Your task to perform on an android device: Open Yahoo.com Image 0: 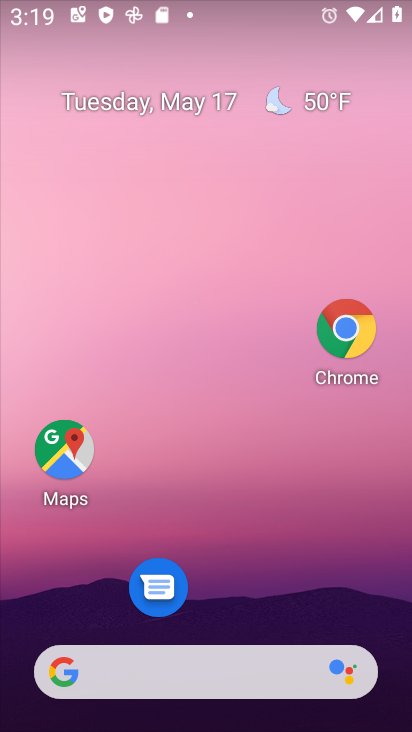
Step 0: click (359, 328)
Your task to perform on an android device: Open Yahoo.com Image 1: 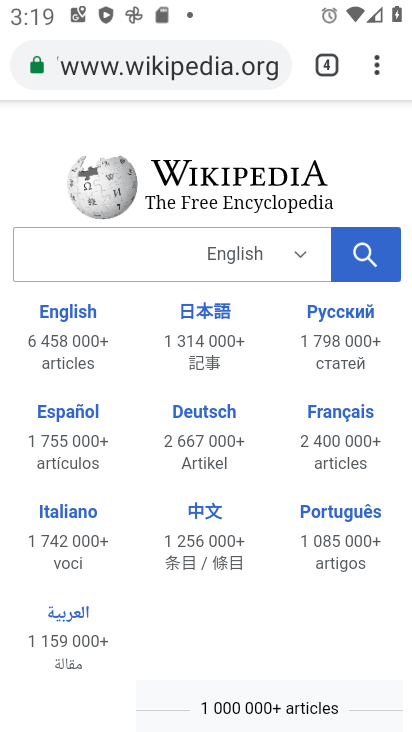
Step 1: click (209, 67)
Your task to perform on an android device: Open Yahoo.com Image 2: 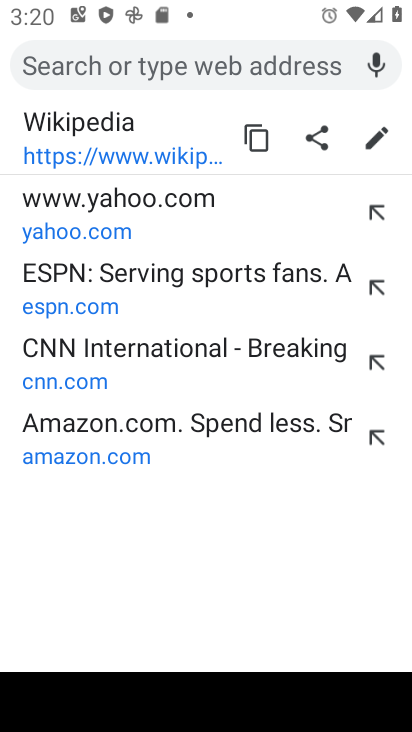
Step 2: type "yahoo.com"
Your task to perform on an android device: Open Yahoo.com Image 3: 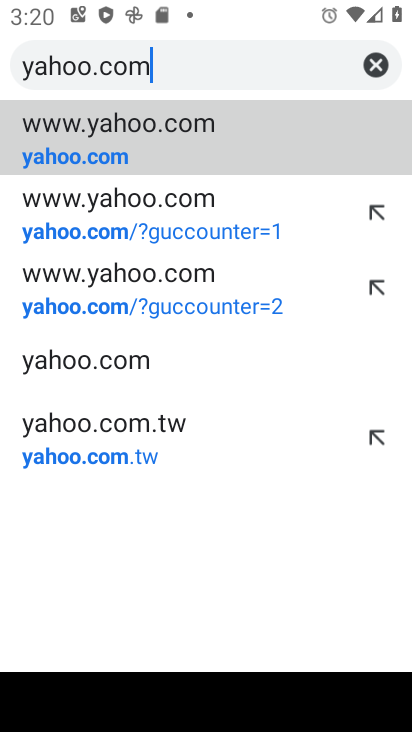
Step 3: click (145, 146)
Your task to perform on an android device: Open Yahoo.com Image 4: 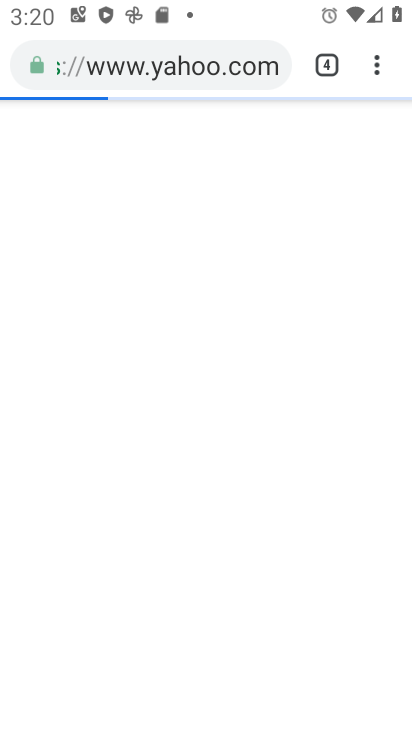
Step 4: task complete